Your task to perform on an android device: Go to notification settings Image 0: 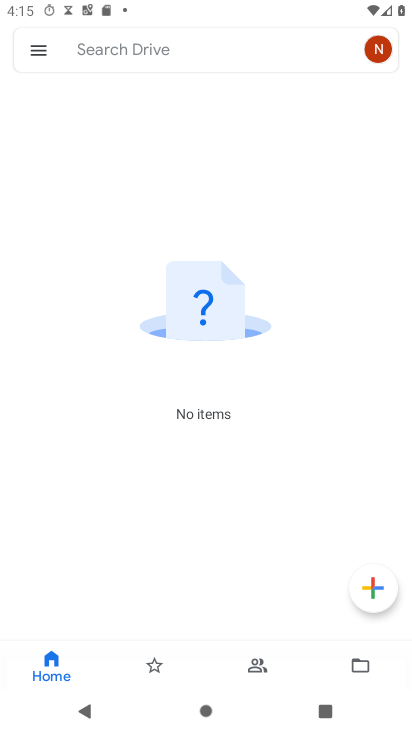
Step 0: press home button
Your task to perform on an android device: Go to notification settings Image 1: 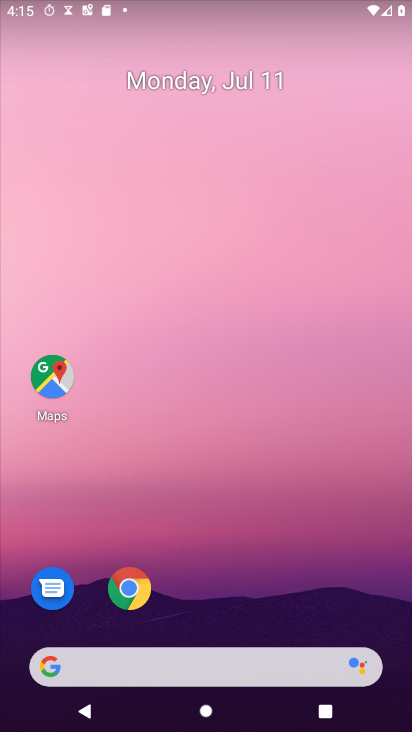
Step 1: drag from (315, 582) to (335, 335)
Your task to perform on an android device: Go to notification settings Image 2: 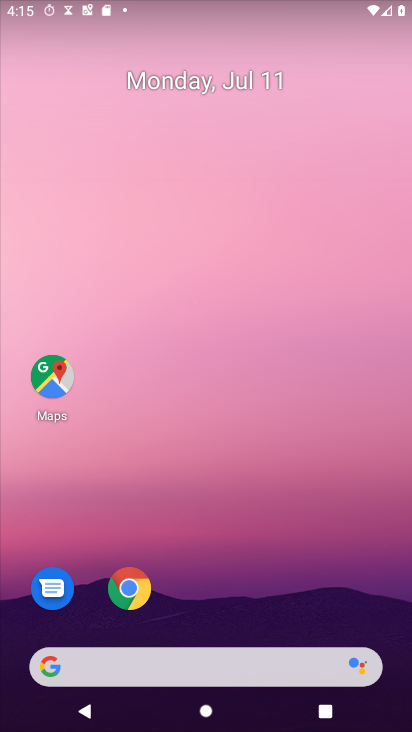
Step 2: drag from (371, 532) to (260, 15)
Your task to perform on an android device: Go to notification settings Image 3: 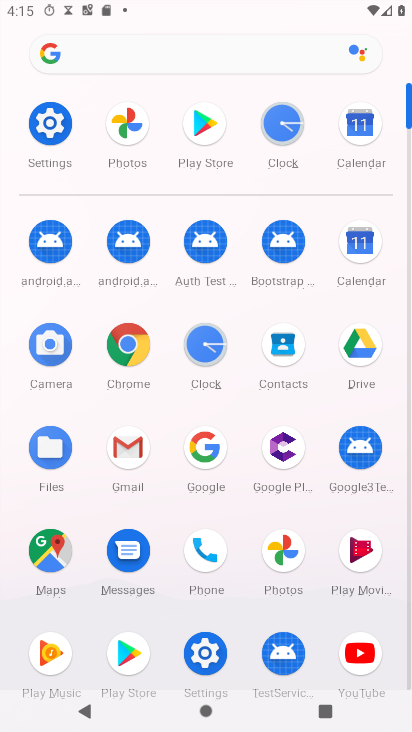
Step 3: click (46, 117)
Your task to perform on an android device: Go to notification settings Image 4: 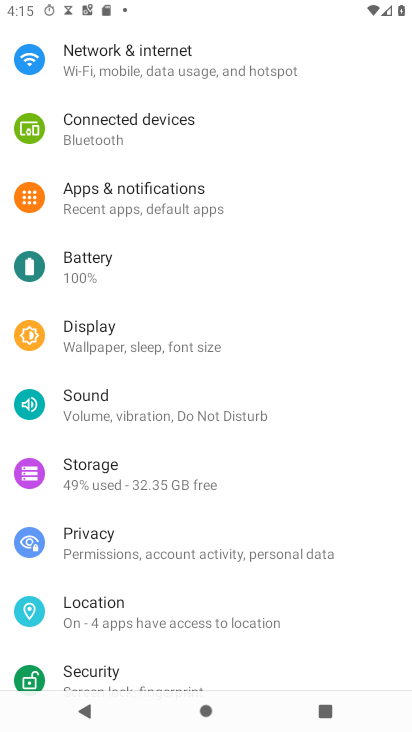
Step 4: click (186, 185)
Your task to perform on an android device: Go to notification settings Image 5: 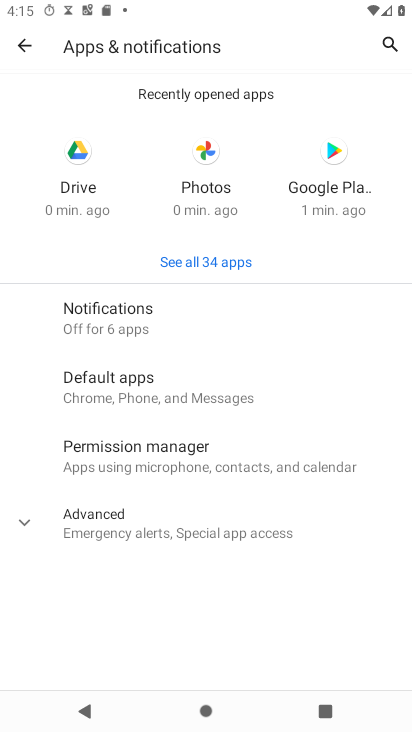
Step 5: click (142, 331)
Your task to perform on an android device: Go to notification settings Image 6: 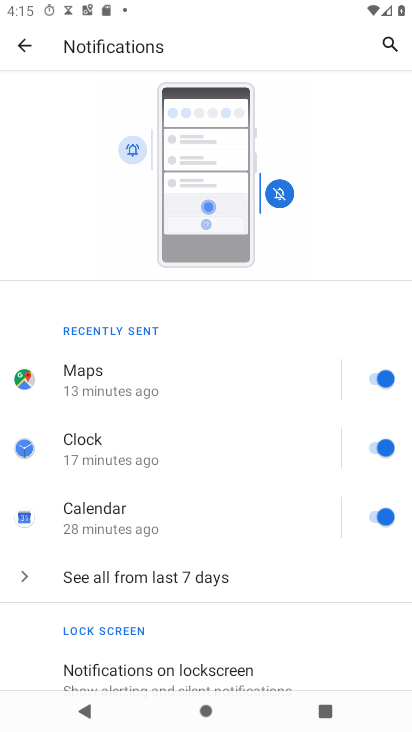
Step 6: task complete